Your task to perform on an android device: Look up the best selling books on Goodreads. Image 0: 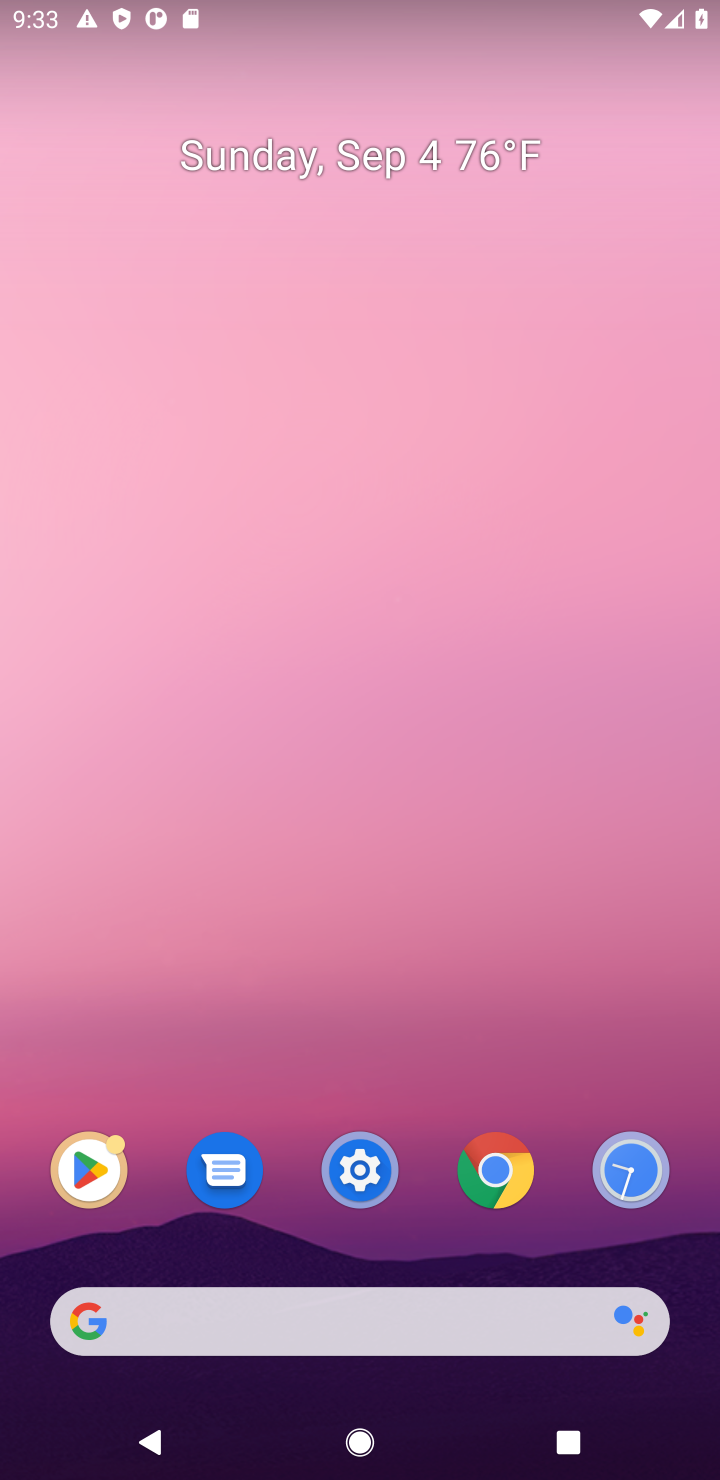
Step 0: task complete